Your task to perform on an android device: What is the recent news? Image 0: 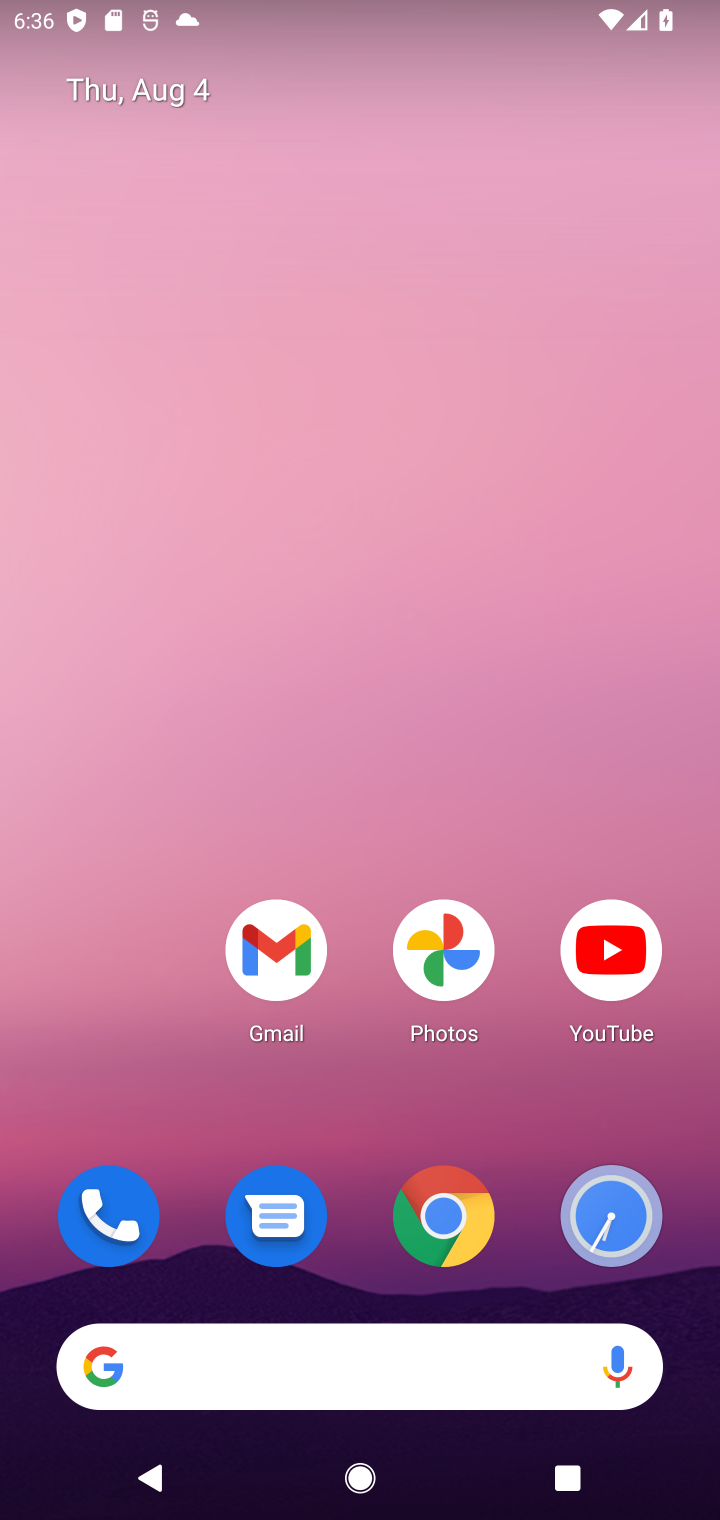
Step 0: click (444, 1239)
Your task to perform on an android device: What is the recent news? Image 1: 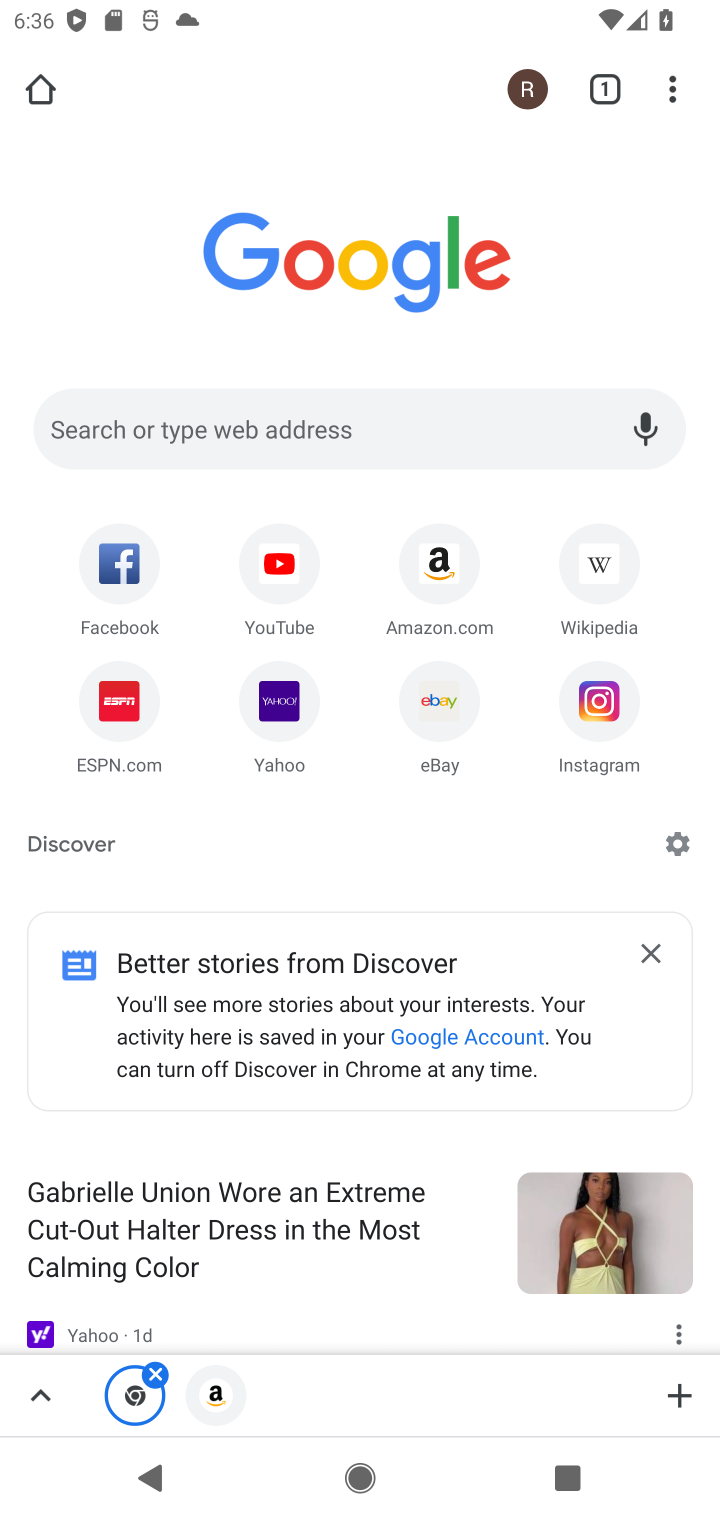
Step 1: click (321, 423)
Your task to perform on an android device: What is the recent news? Image 2: 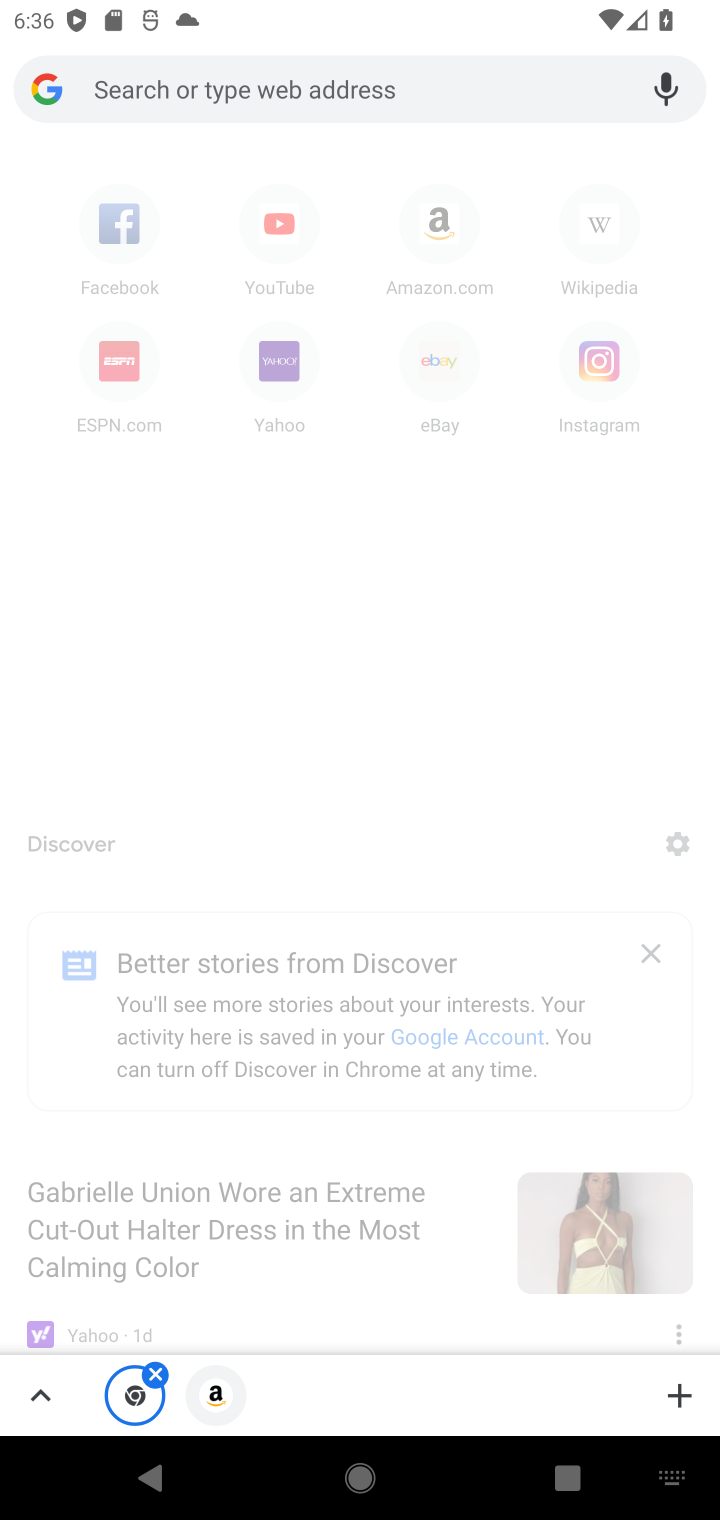
Step 2: type "recent news"
Your task to perform on an android device: What is the recent news? Image 3: 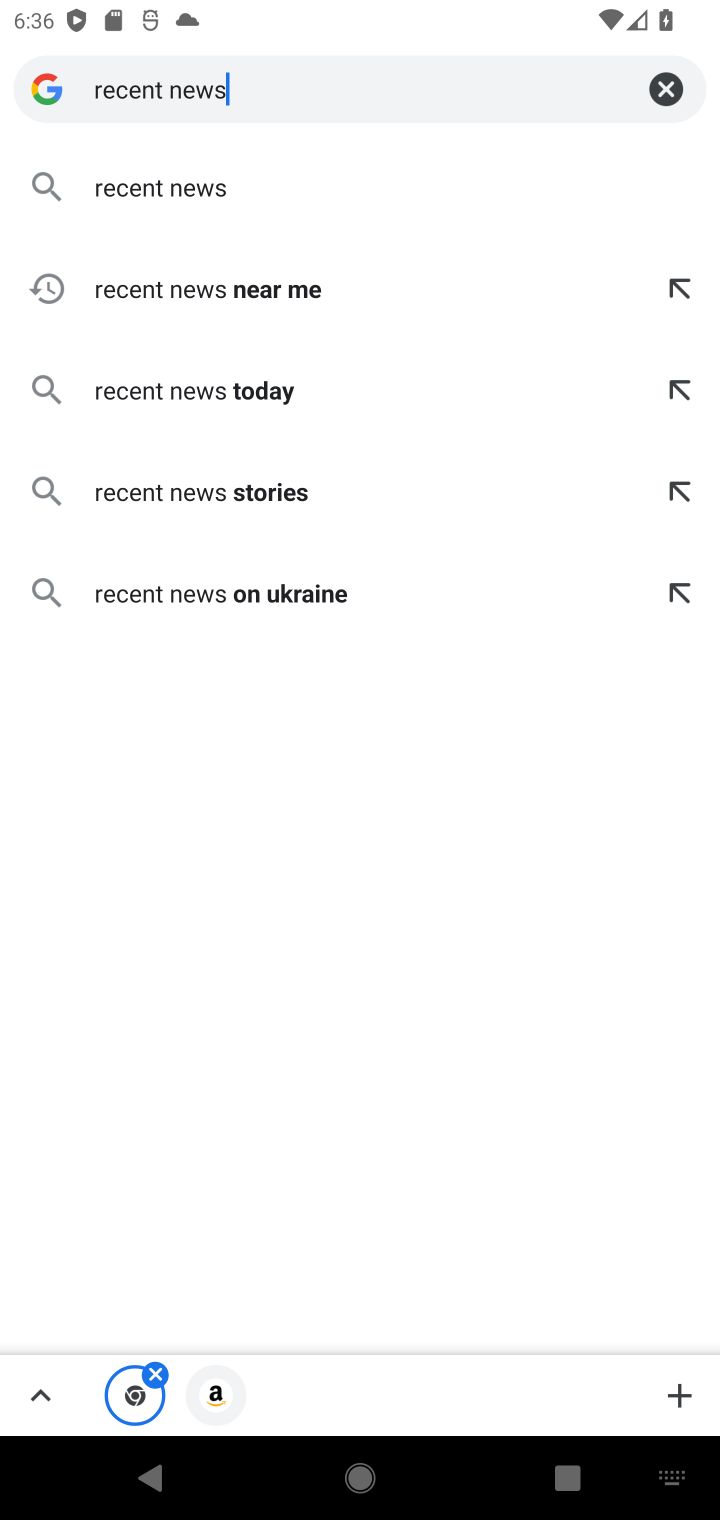
Step 3: click (141, 190)
Your task to perform on an android device: What is the recent news? Image 4: 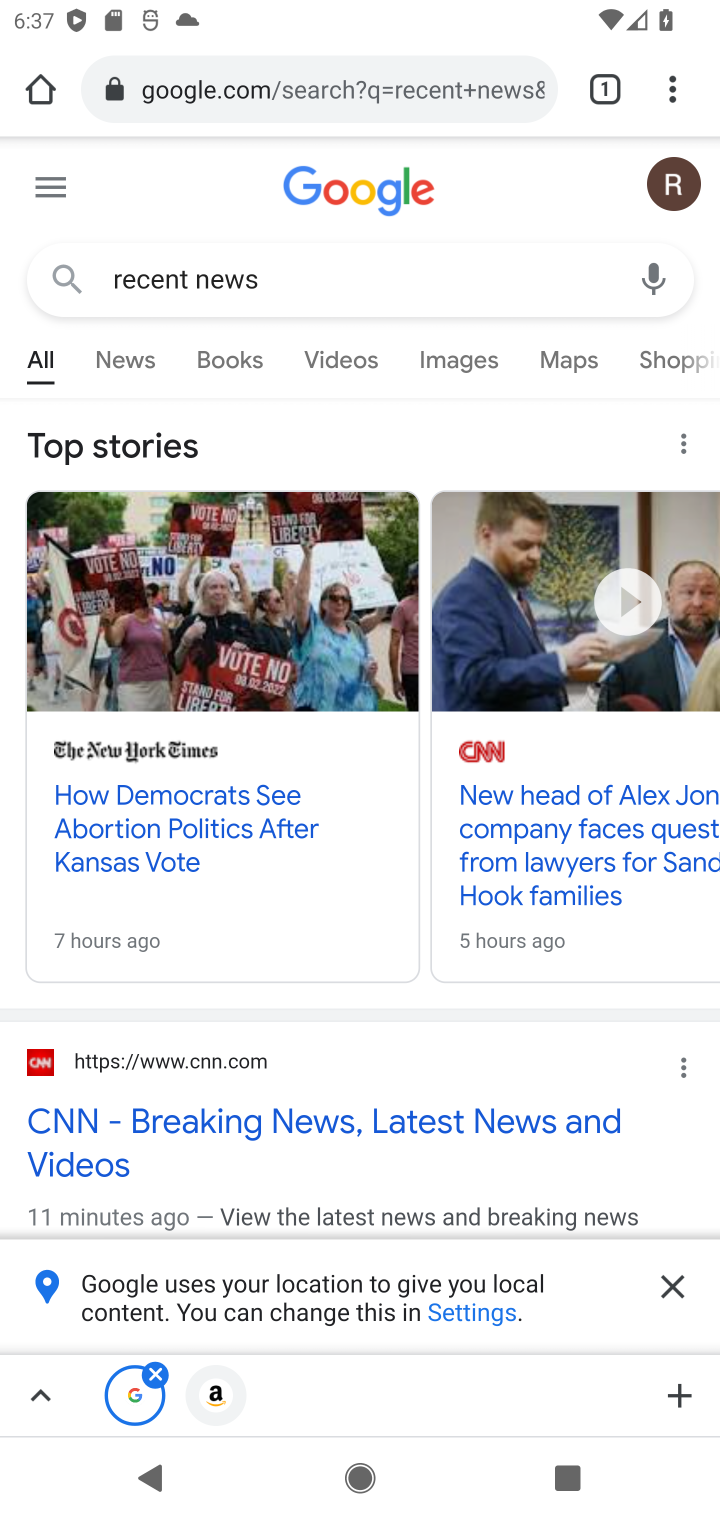
Step 4: task complete